Your task to perform on an android device: set the timer Image 0: 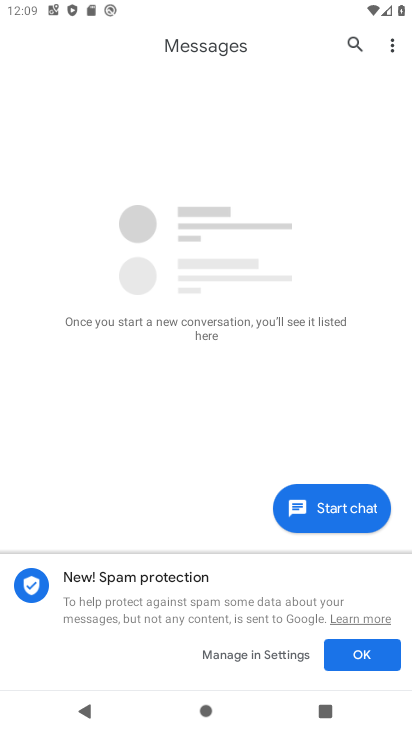
Step 0: press back button
Your task to perform on an android device: set the timer Image 1: 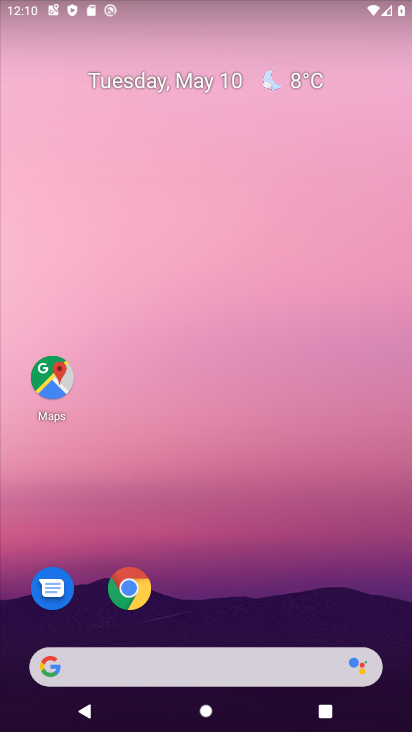
Step 1: drag from (186, 595) to (290, 103)
Your task to perform on an android device: set the timer Image 2: 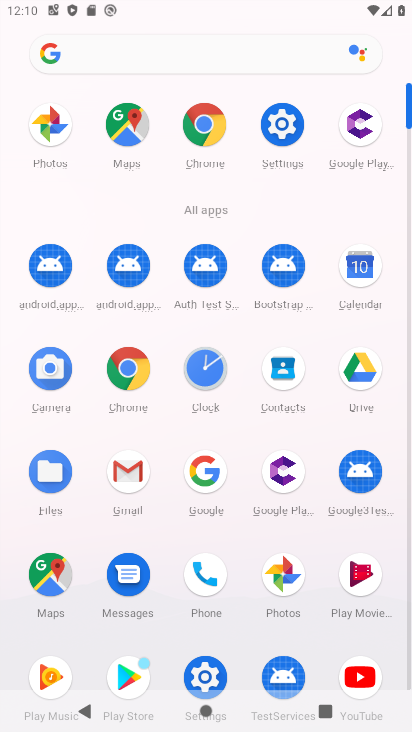
Step 2: click (198, 369)
Your task to perform on an android device: set the timer Image 3: 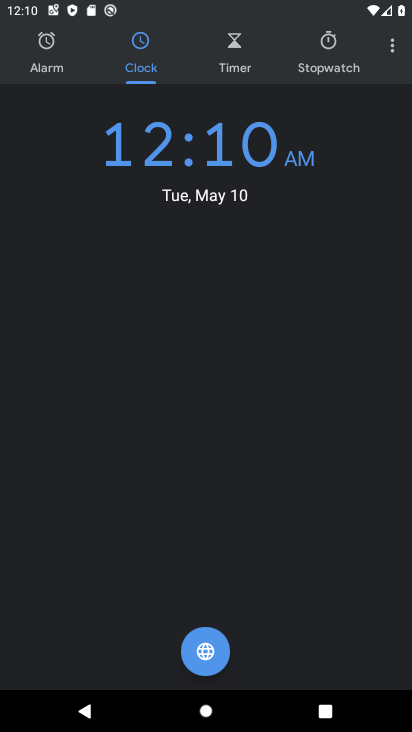
Step 3: click (232, 47)
Your task to perform on an android device: set the timer Image 4: 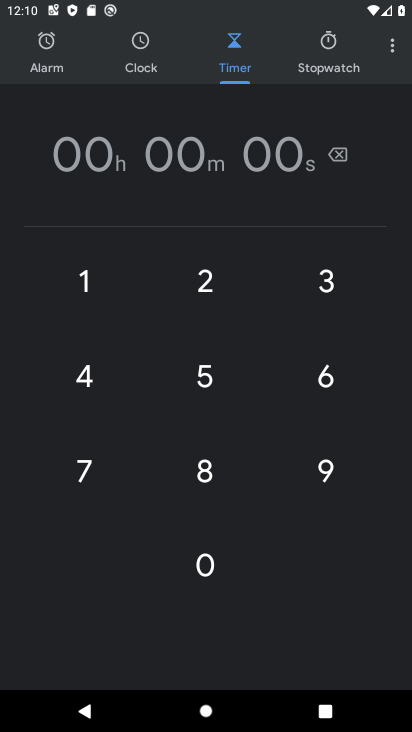
Step 4: click (218, 276)
Your task to perform on an android device: set the timer Image 5: 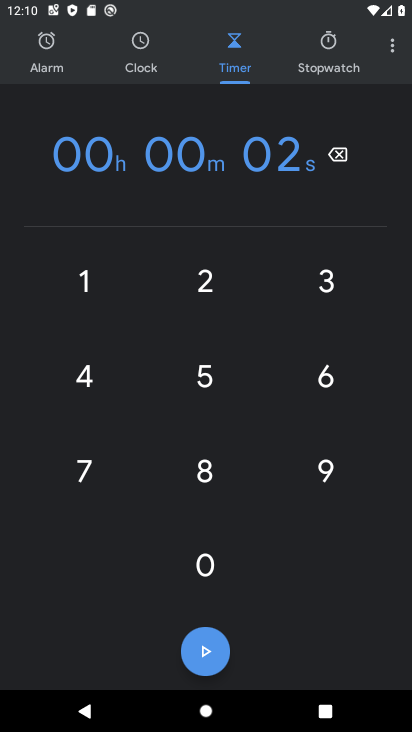
Step 5: click (213, 563)
Your task to perform on an android device: set the timer Image 6: 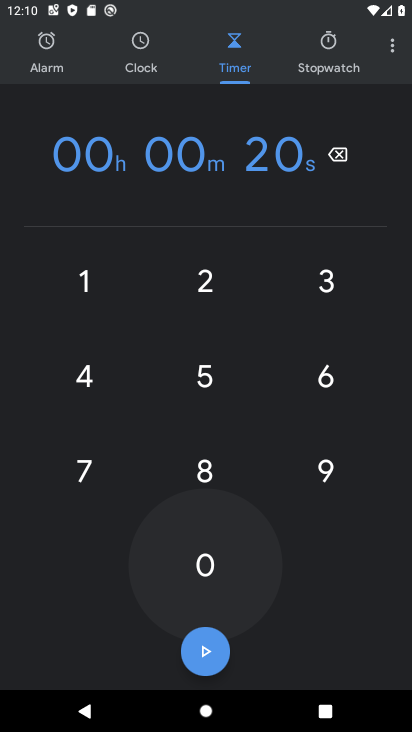
Step 6: click (213, 563)
Your task to perform on an android device: set the timer Image 7: 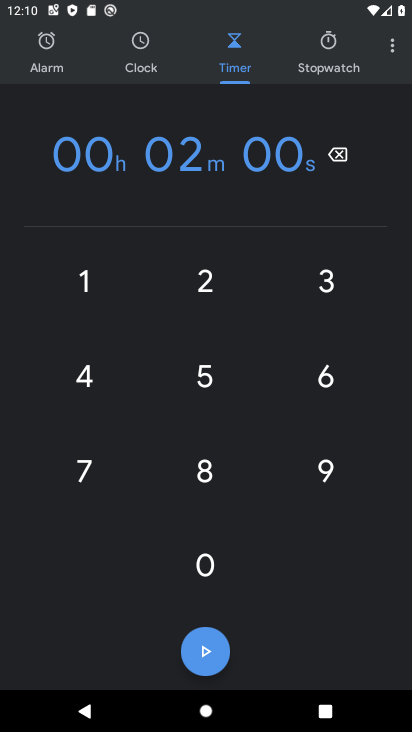
Step 7: click (213, 563)
Your task to perform on an android device: set the timer Image 8: 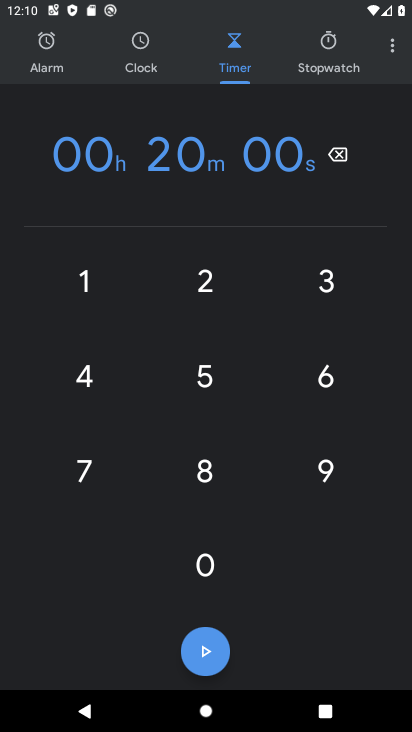
Step 8: click (213, 563)
Your task to perform on an android device: set the timer Image 9: 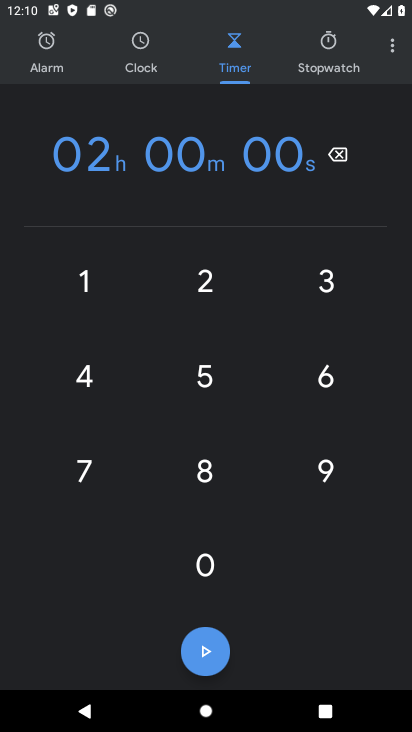
Step 9: click (213, 563)
Your task to perform on an android device: set the timer Image 10: 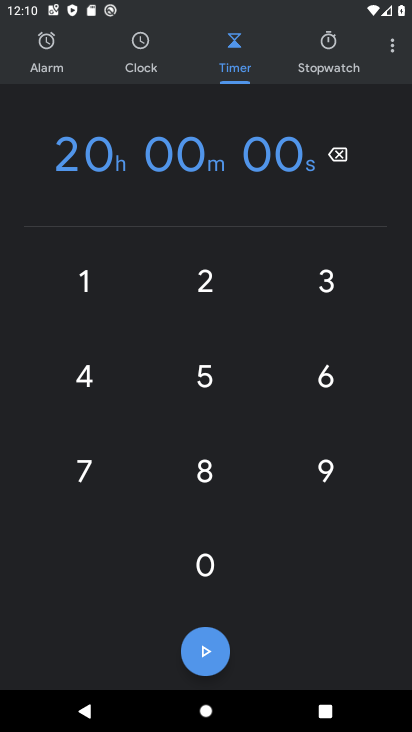
Step 10: click (228, 668)
Your task to perform on an android device: set the timer Image 11: 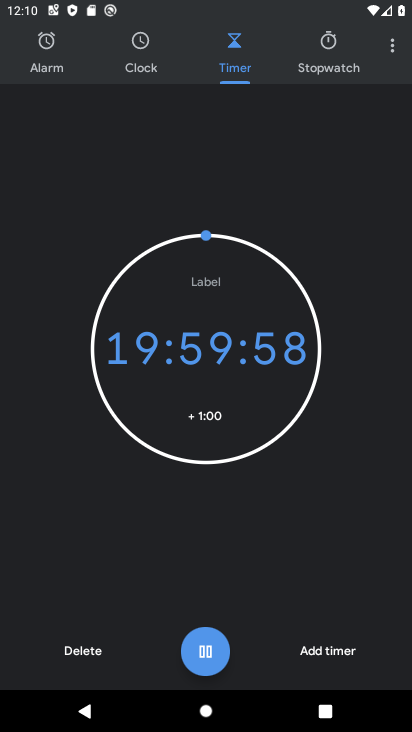
Step 11: task complete